Your task to perform on an android device: Clear the shopping cart on bestbuy. Add logitech g pro to the cart on bestbuy, then select checkout. Image 0: 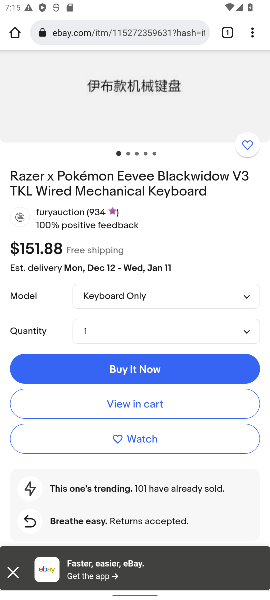
Step 0: press home button
Your task to perform on an android device: Clear the shopping cart on bestbuy. Add logitech g pro to the cart on bestbuy, then select checkout. Image 1: 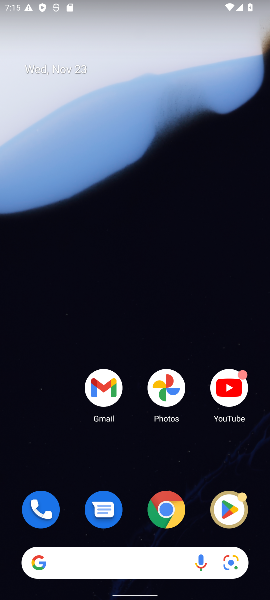
Step 1: click (161, 522)
Your task to perform on an android device: Clear the shopping cart on bestbuy. Add logitech g pro to the cart on bestbuy, then select checkout. Image 2: 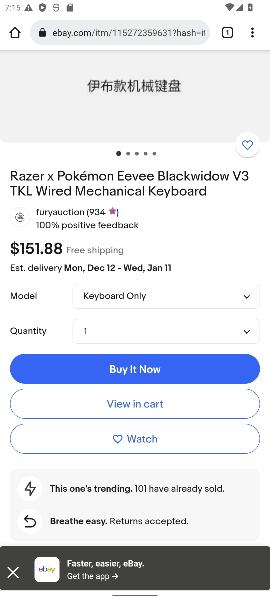
Step 2: click (168, 29)
Your task to perform on an android device: Clear the shopping cart on bestbuy. Add logitech g pro to the cart on bestbuy, then select checkout. Image 3: 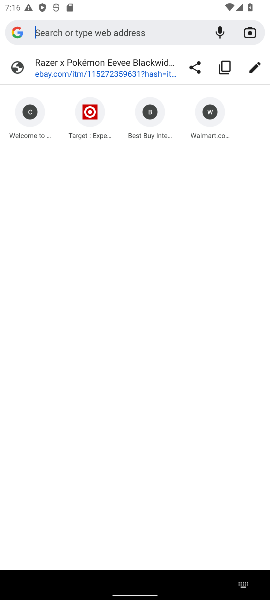
Step 3: type "bestbuy"
Your task to perform on an android device: Clear the shopping cart on bestbuy. Add logitech g pro to the cart on bestbuy, then select checkout. Image 4: 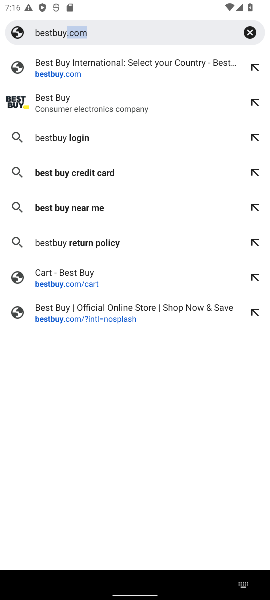
Step 4: click (172, 72)
Your task to perform on an android device: Clear the shopping cart on bestbuy. Add logitech g pro to the cart on bestbuy, then select checkout. Image 5: 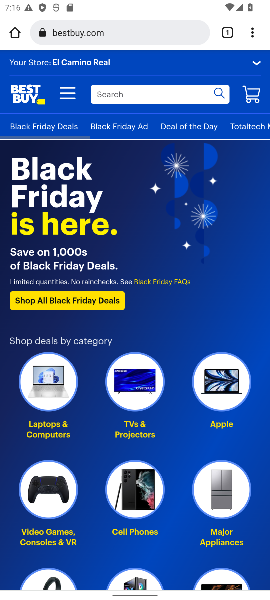
Step 5: click (255, 97)
Your task to perform on an android device: Clear the shopping cart on bestbuy. Add logitech g pro to the cart on bestbuy, then select checkout. Image 6: 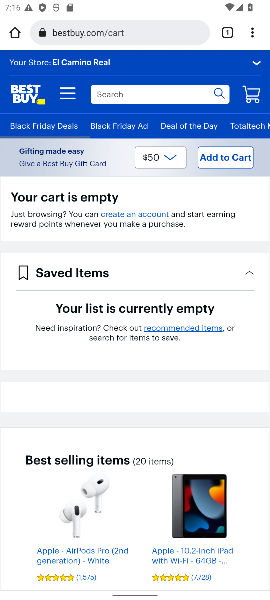
Step 6: click (161, 96)
Your task to perform on an android device: Clear the shopping cart on bestbuy. Add logitech g pro to the cart on bestbuy, then select checkout. Image 7: 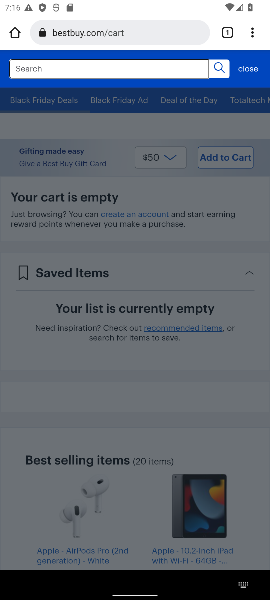
Step 7: type "logitech g pro"
Your task to perform on an android device: Clear the shopping cart on bestbuy. Add logitech g pro to the cart on bestbuy, then select checkout. Image 8: 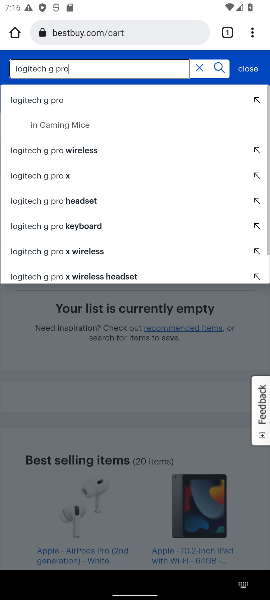
Step 8: click (54, 101)
Your task to perform on an android device: Clear the shopping cart on bestbuy. Add logitech g pro to the cart on bestbuy, then select checkout. Image 9: 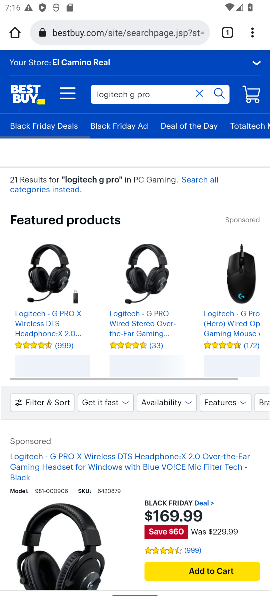
Step 9: drag from (127, 533) to (108, 293)
Your task to perform on an android device: Clear the shopping cart on bestbuy. Add logitech g pro to the cart on bestbuy, then select checkout. Image 10: 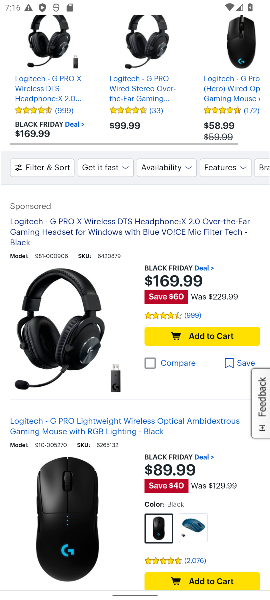
Step 10: click (202, 340)
Your task to perform on an android device: Clear the shopping cart on bestbuy. Add logitech g pro to the cart on bestbuy, then select checkout. Image 11: 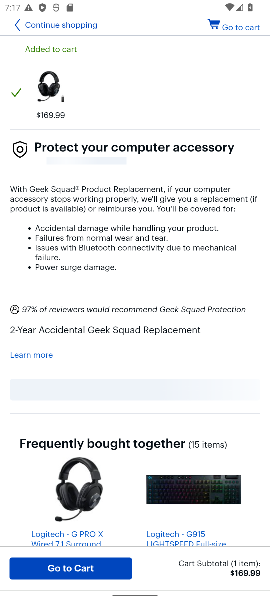
Step 11: click (227, 27)
Your task to perform on an android device: Clear the shopping cart on bestbuy. Add logitech g pro to the cart on bestbuy, then select checkout. Image 12: 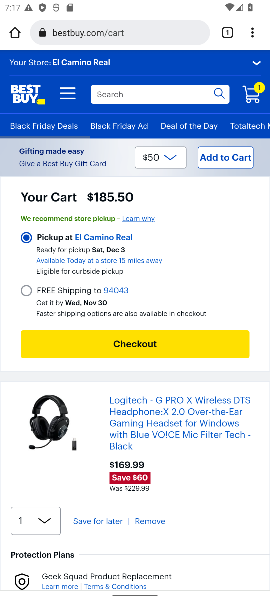
Step 12: click (149, 349)
Your task to perform on an android device: Clear the shopping cart on bestbuy. Add logitech g pro to the cart on bestbuy, then select checkout. Image 13: 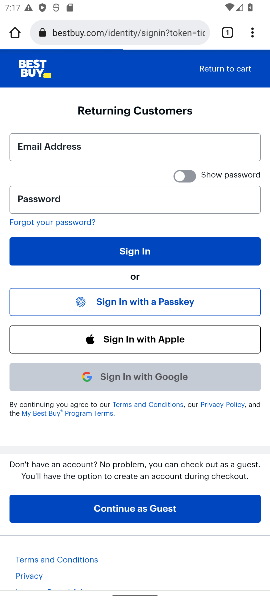
Step 13: task complete